Your task to perform on an android device: Clear the cart on walmart.com. Add "asus rog" to the cart on walmart.com Image 0: 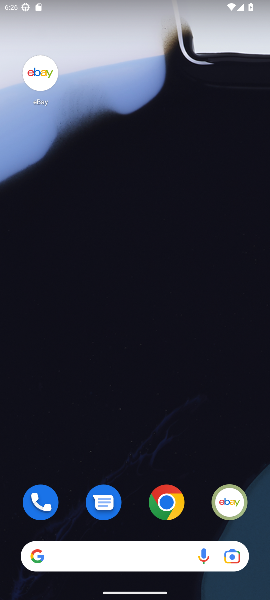
Step 0: drag from (88, 535) to (47, 178)
Your task to perform on an android device: Clear the cart on walmart.com. Add "asus rog" to the cart on walmart.com Image 1: 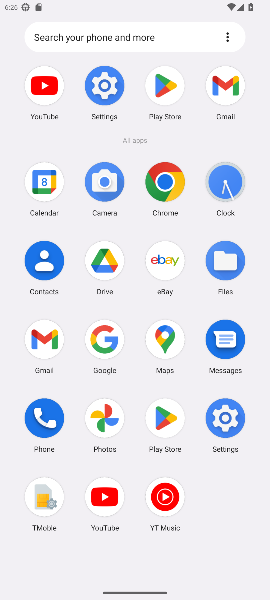
Step 1: click (92, 329)
Your task to perform on an android device: Clear the cart on walmart.com. Add "asus rog" to the cart on walmart.com Image 2: 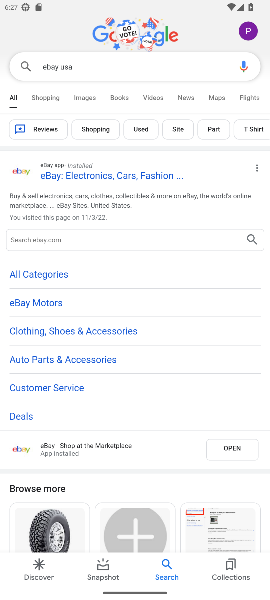
Step 2: click (108, 58)
Your task to perform on an android device: Clear the cart on walmart.com. Add "asus rog" to the cart on walmart.com Image 3: 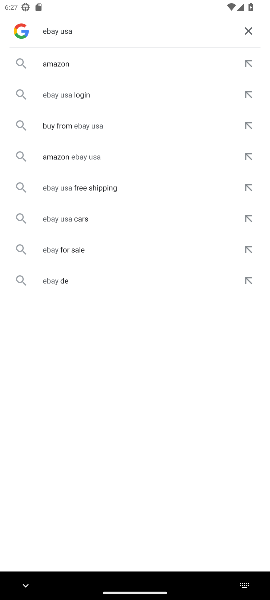
Step 3: click (251, 27)
Your task to perform on an android device: Clear the cart on walmart.com. Add "asus rog" to the cart on walmart.com Image 4: 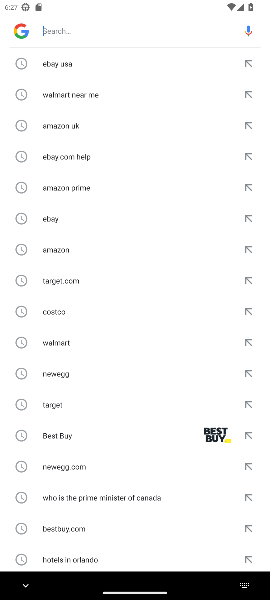
Step 4: click (104, 33)
Your task to perform on an android device: Clear the cart on walmart.com. Add "asus rog" to the cart on walmart.com Image 5: 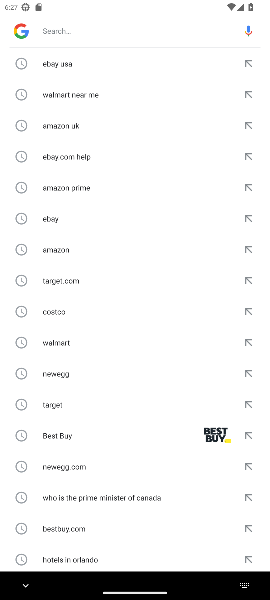
Step 5: type "walmart "
Your task to perform on an android device: Clear the cart on walmart.com. Add "asus rog" to the cart on walmart.com Image 6: 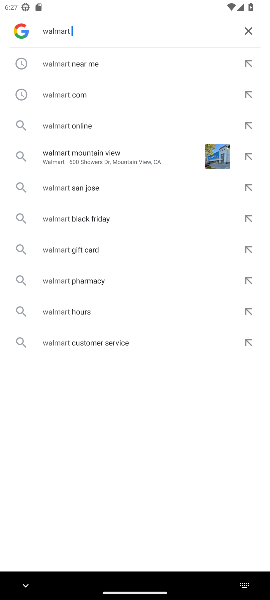
Step 6: click (64, 65)
Your task to perform on an android device: Clear the cart on walmart.com. Add "asus rog" to the cart on walmart.com Image 7: 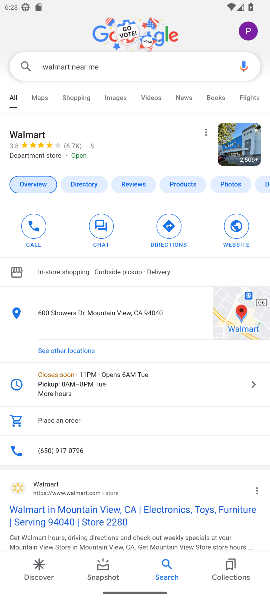
Step 7: click (19, 486)
Your task to perform on an android device: Clear the cart on walmart.com. Add "asus rog" to the cart on walmart.com Image 8: 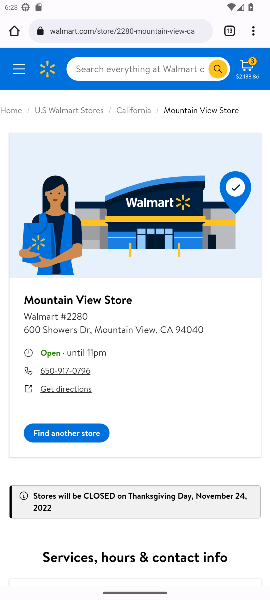
Step 8: click (127, 62)
Your task to perform on an android device: Clear the cart on walmart.com. Add "asus rog" to the cart on walmart.com Image 9: 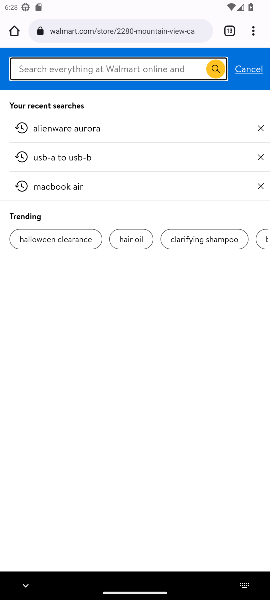
Step 9: click (126, 66)
Your task to perform on an android device: Clear the cart on walmart.com. Add "asus rog" to the cart on walmart.com Image 10: 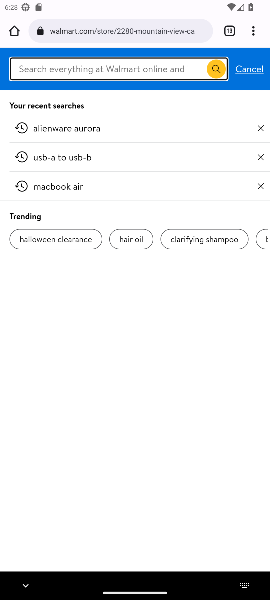
Step 10: type "asus rog" "
Your task to perform on an android device: Clear the cart on walmart.com. Add "asus rog" to the cart on walmart.com Image 11: 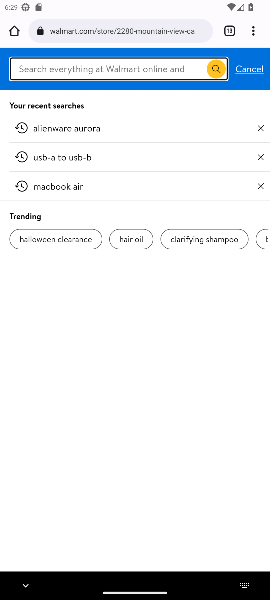
Step 11: click (130, 62)
Your task to perform on an android device: Clear the cart on walmart.com. Add "asus rog" to the cart on walmart.com Image 12: 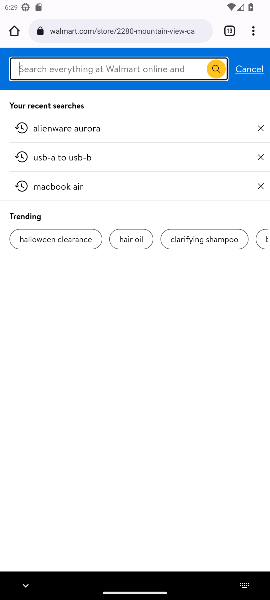
Step 12: type "asus rog" "
Your task to perform on an android device: Clear the cart on walmart.com. Add "asus rog" to the cart on walmart.com Image 13: 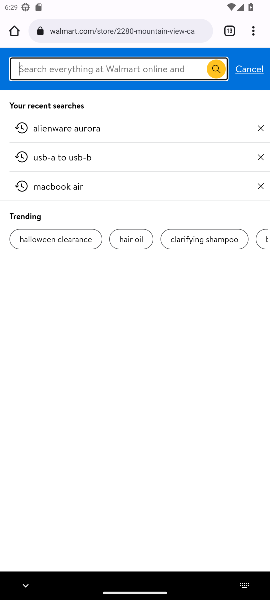
Step 13: click (102, 69)
Your task to perform on an android device: Clear the cart on walmart.com. Add "asus rog" to the cart on walmart.com Image 14: 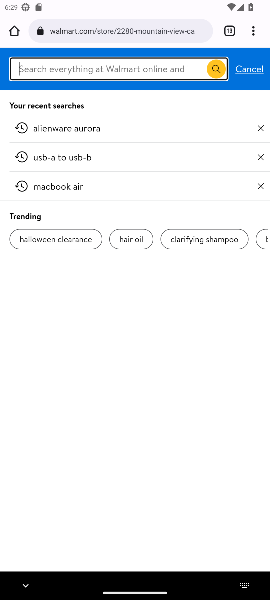
Step 14: type "rog "
Your task to perform on an android device: Clear the cart on walmart.com. Add "asus rog" to the cart on walmart.com Image 15: 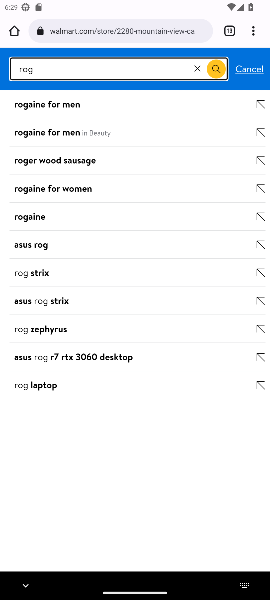
Step 15: click (47, 307)
Your task to perform on an android device: Clear the cart on walmart.com. Add "asus rog" to the cart on walmart.com Image 16: 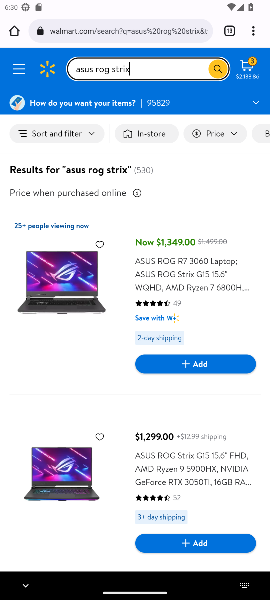
Step 16: click (183, 362)
Your task to perform on an android device: Clear the cart on walmart.com. Add "asus rog" to the cart on walmart.com Image 17: 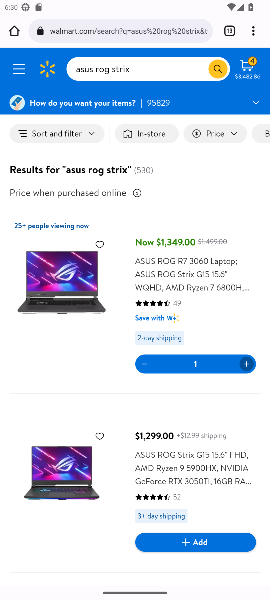
Step 17: task complete